Your task to perform on an android device: Open Google Chrome Image 0: 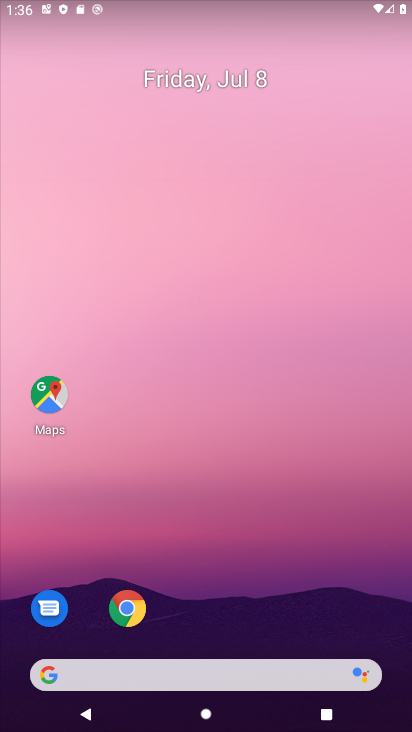
Step 0: click (125, 608)
Your task to perform on an android device: Open Google Chrome Image 1: 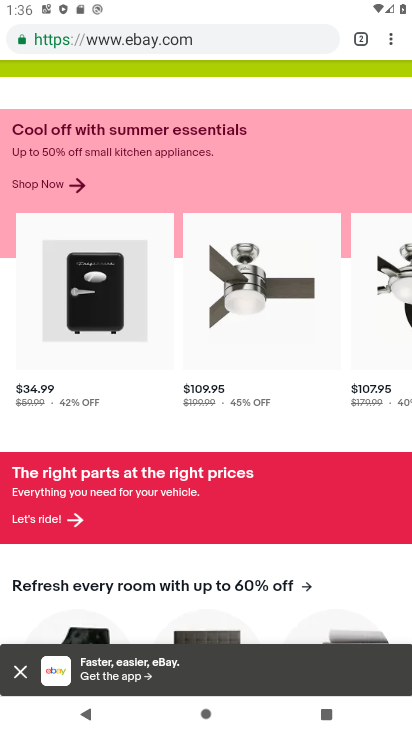
Step 1: task complete